Your task to perform on an android device: Do I have any events tomorrow? Image 0: 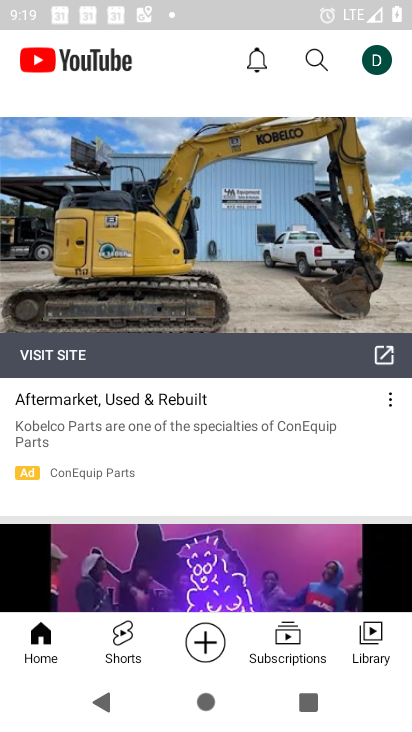
Step 0: press back button
Your task to perform on an android device: Do I have any events tomorrow? Image 1: 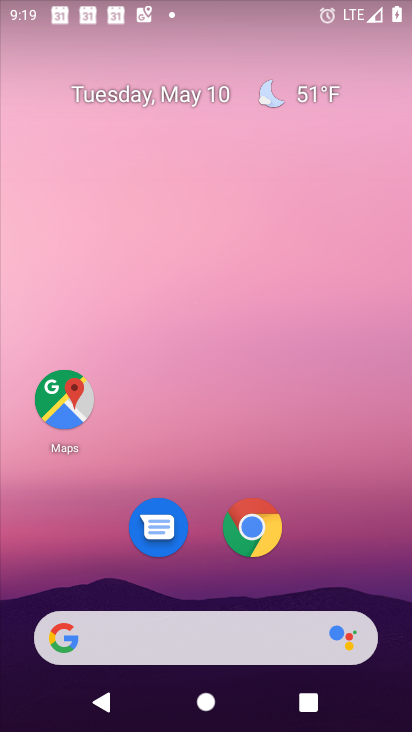
Step 1: drag from (204, 582) to (131, 3)
Your task to perform on an android device: Do I have any events tomorrow? Image 2: 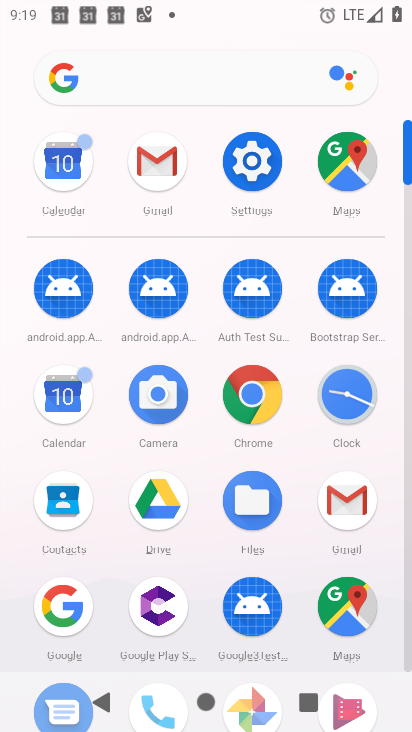
Step 2: click (74, 395)
Your task to perform on an android device: Do I have any events tomorrow? Image 3: 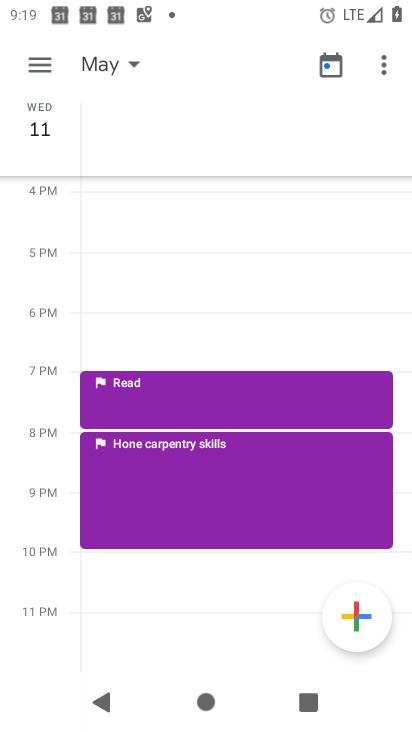
Step 3: click (48, 62)
Your task to perform on an android device: Do I have any events tomorrow? Image 4: 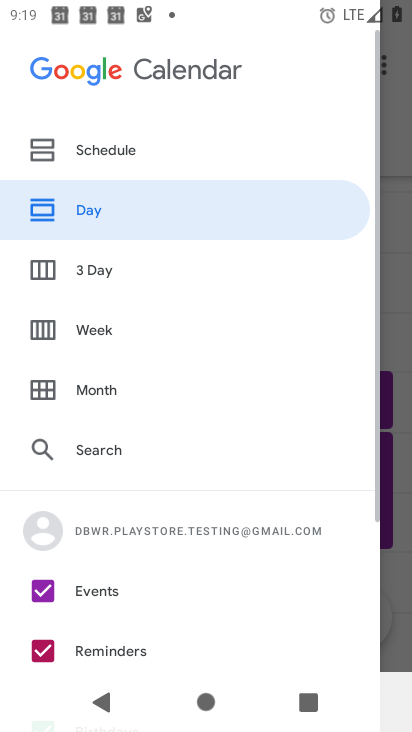
Step 4: click (73, 269)
Your task to perform on an android device: Do I have any events tomorrow? Image 5: 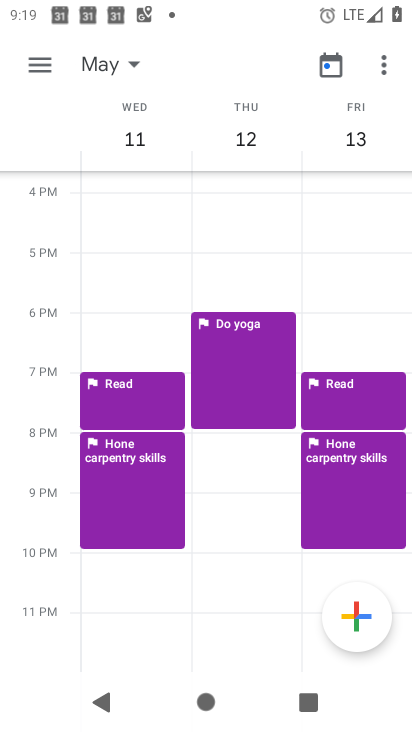
Step 5: click (134, 135)
Your task to perform on an android device: Do I have any events tomorrow? Image 6: 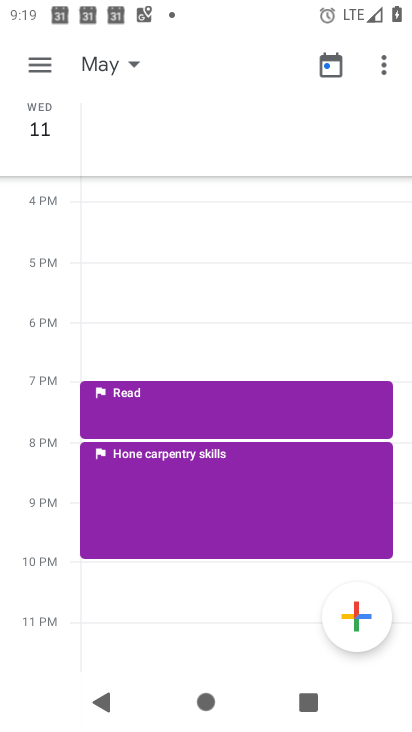
Step 6: task complete